Your task to perform on an android device: turn off data saver in the chrome app Image 0: 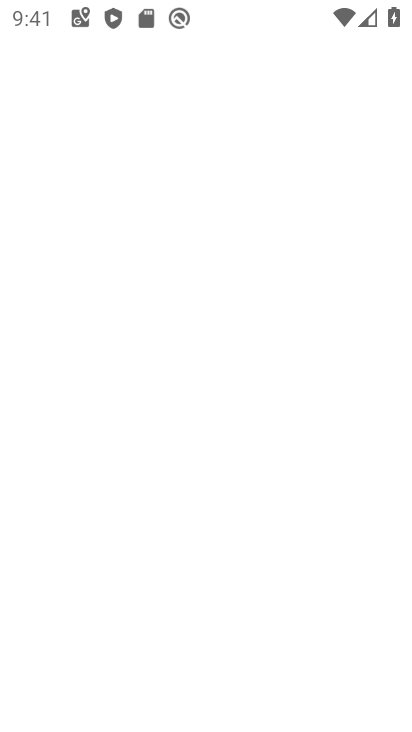
Step 0: drag from (379, 583) to (411, 195)
Your task to perform on an android device: turn off data saver in the chrome app Image 1: 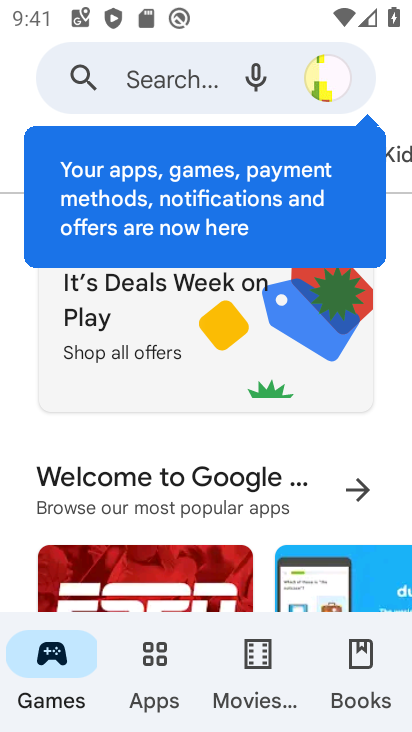
Step 1: press home button
Your task to perform on an android device: turn off data saver in the chrome app Image 2: 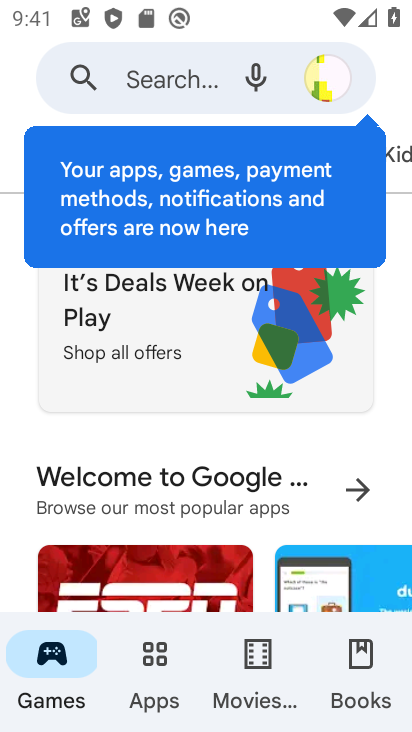
Step 2: drag from (411, 195) to (374, 450)
Your task to perform on an android device: turn off data saver in the chrome app Image 3: 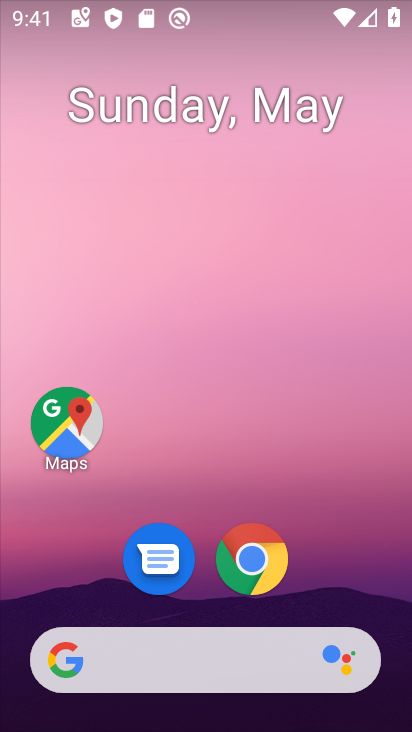
Step 3: click (250, 559)
Your task to perform on an android device: turn off data saver in the chrome app Image 4: 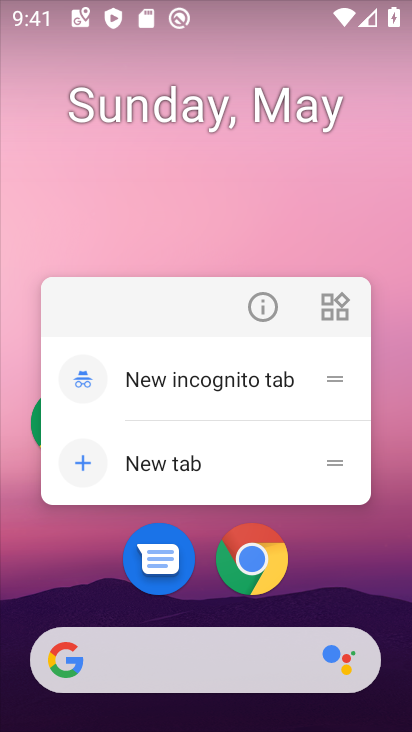
Step 4: click (243, 555)
Your task to perform on an android device: turn off data saver in the chrome app Image 5: 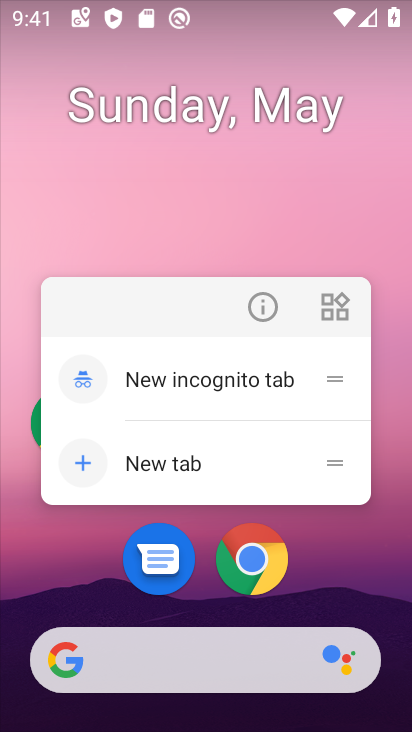
Step 5: click (243, 555)
Your task to perform on an android device: turn off data saver in the chrome app Image 6: 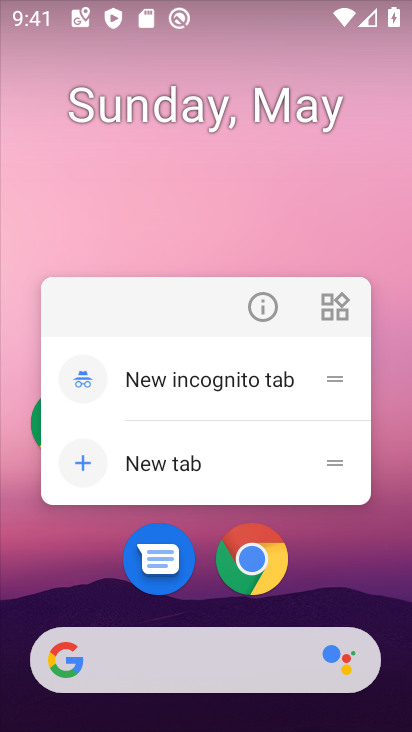
Step 6: click (243, 555)
Your task to perform on an android device: turn off data saver in the chrome app Image 7: 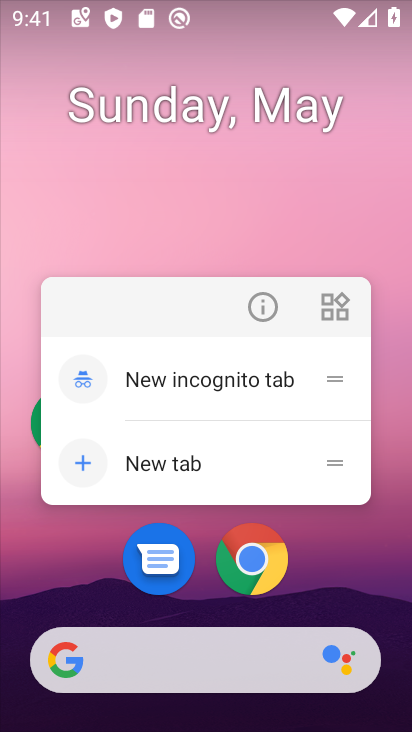
Step 7: click (243, 555)
Your task to perform on an android device: turn off data saver in the chrome app Image 8: 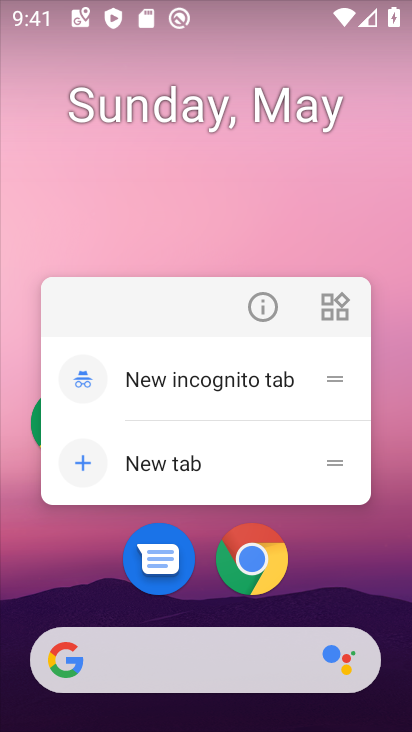
Step 8: click (253, 564)
Your task to perform on an android device: turn off data saver in the chrome app Image 9: 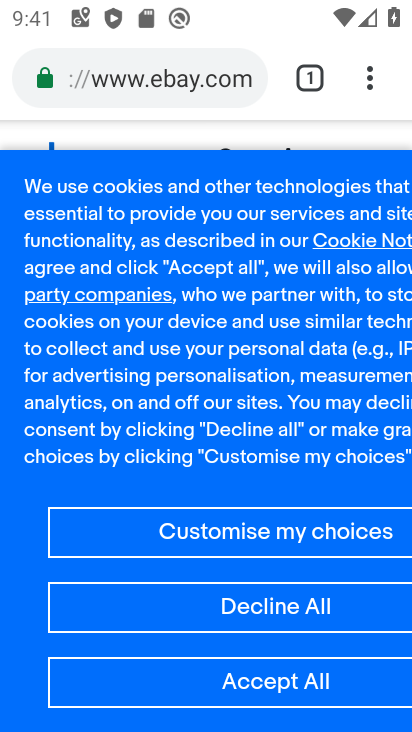
Step 9: drag from (372, 86) to (116, 621)
Your task to perform on an android device: turn off data saver in the chrome app Image 10: 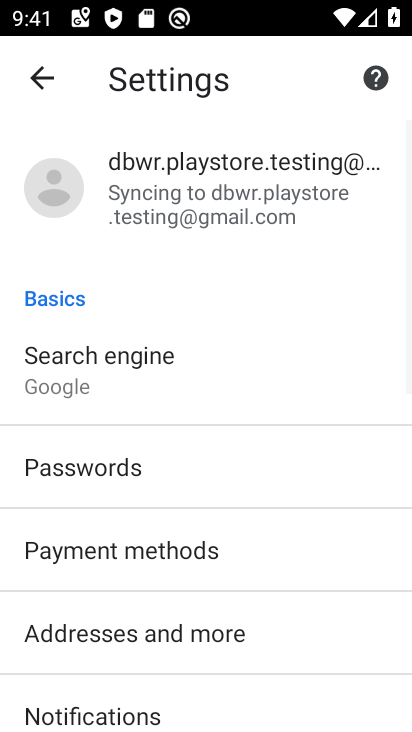
Step 10: drag from (271, 702) to (271, 501)
Your task to perform on an android device: turn off data saver in the chrome app Image 11: 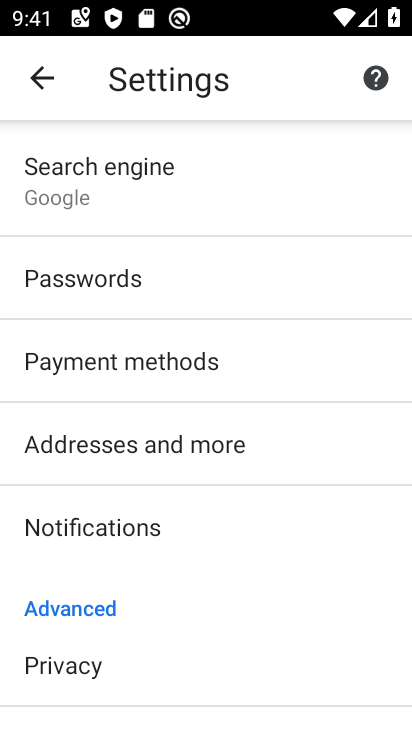
Step 11: drag from (292, 688) to (218, 173)
Your task to perform on an android device: turn off data saver in the chrome app Image 12: 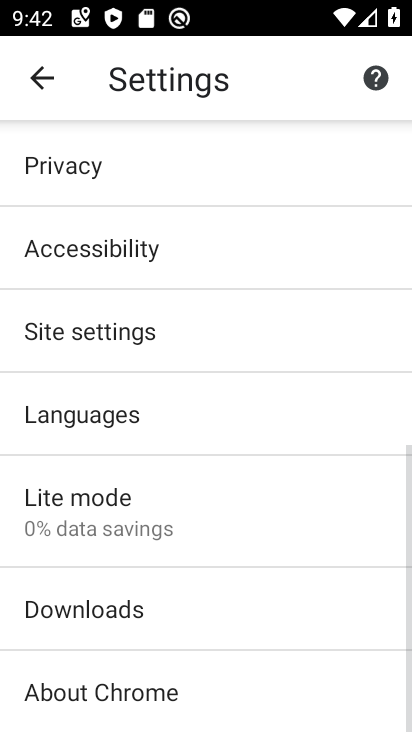
Step 12: click (157, 529)
Your task to perform on an android device: turn off data saver in the chrome app Image 13: 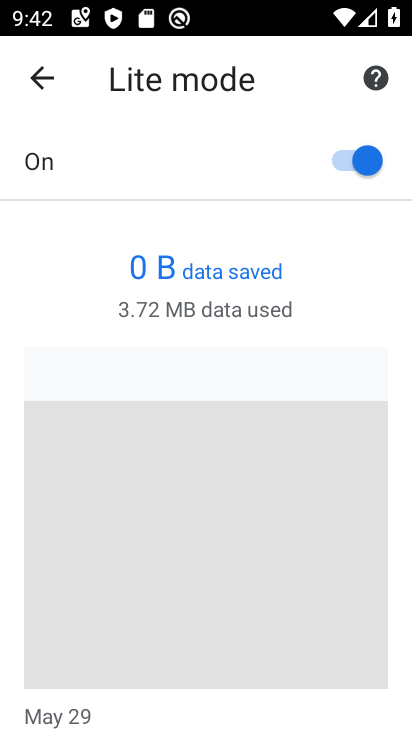
Step 13: click (355, 158)
Your task to perform on an android device: turn off data saver in the chrome app Image 14: 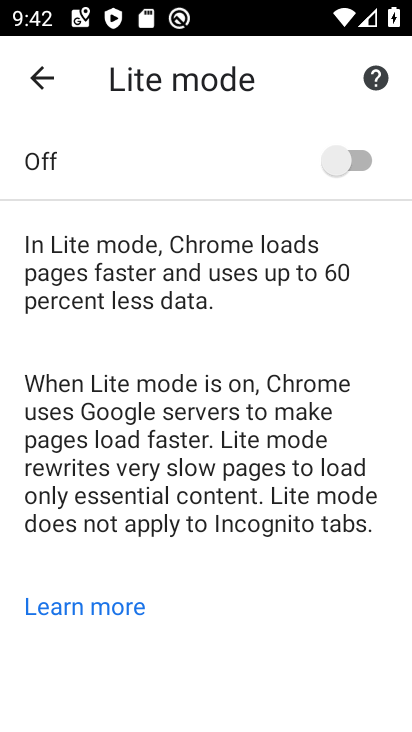
Step 14: task complete